Your task to perform on an android device: Go to Amazon Image 0: 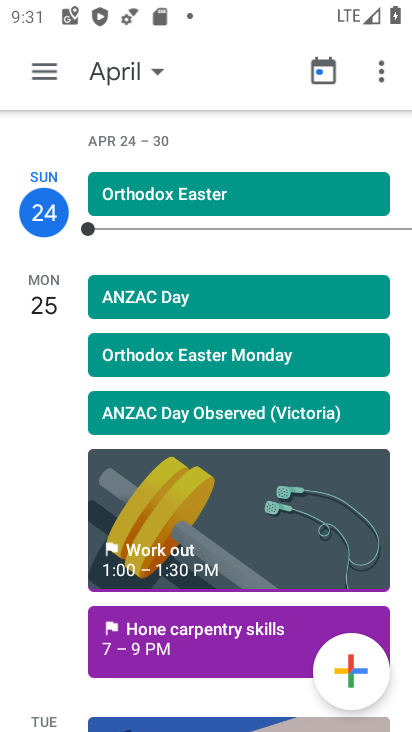
Step 0: press home button
Your task to perform on an android device: Go to Amazon Image 1: 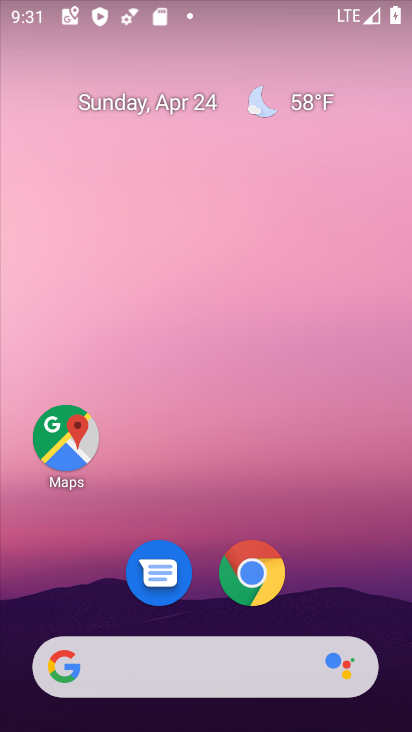
Step 1: drag from (333, 557) to (322, 162)
Your task to perform on an android device: Go to Amazon Image 2: 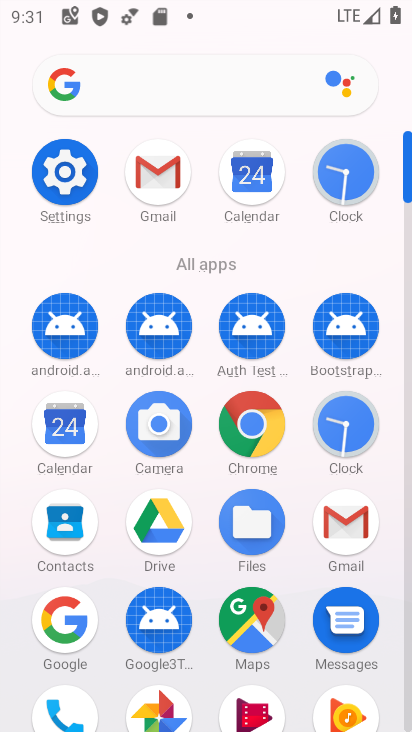
Step 2: click (256, 431)
Your task to perform on an android device: Go to Amazon Image 3: 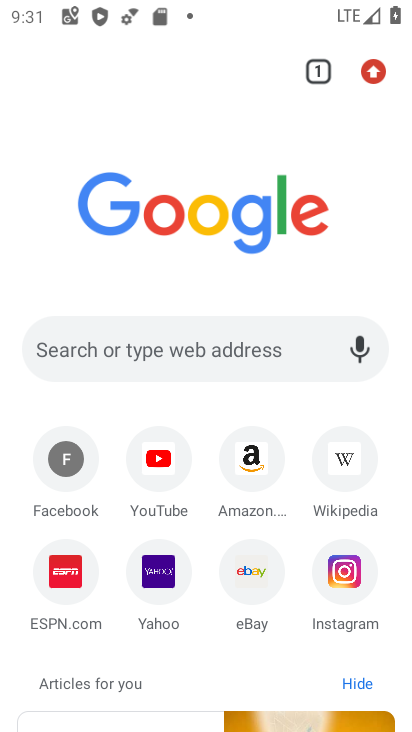
Step 3: click (261, 459)
Your task to perform on an android device: Go to Amazon Image 4: 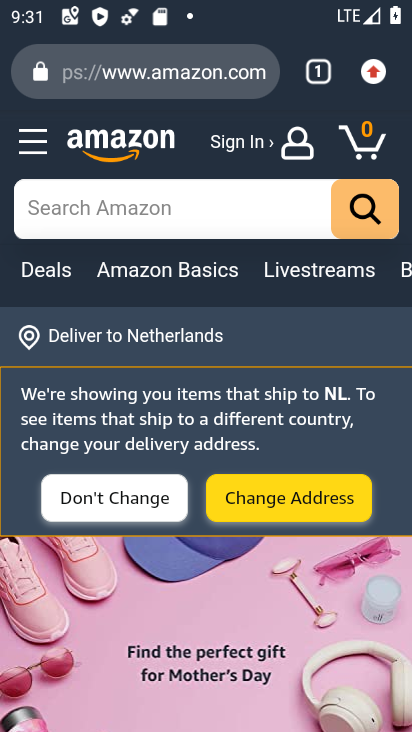
Step 4: task complete